Your task to perform on an android device: Open privacy settings Image 0: 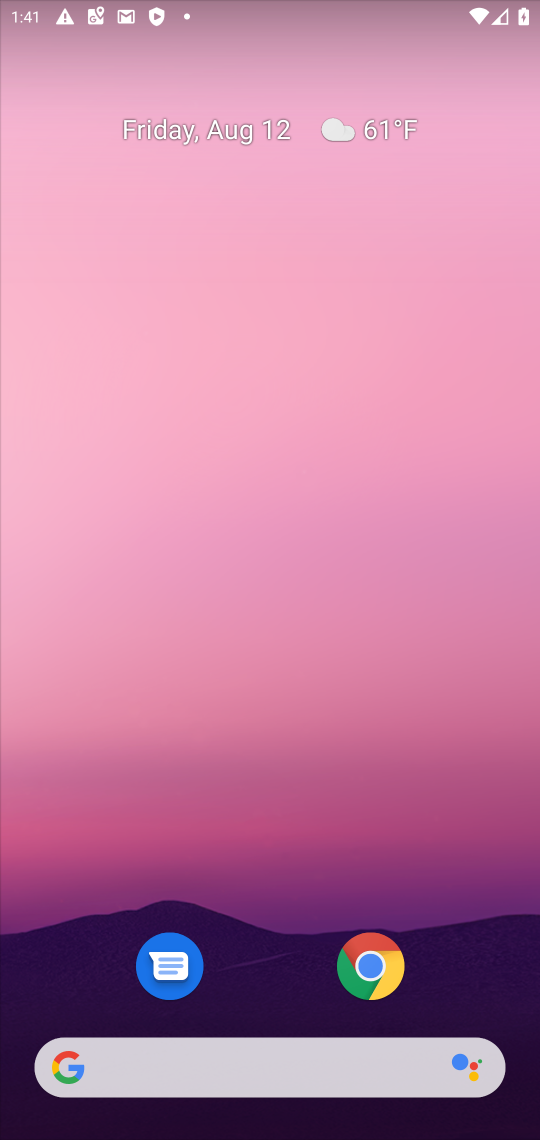
Step 0: drag from (465, 910) to (460, 23)
Your task to perform on an android device: Open privacy settings Image 1: 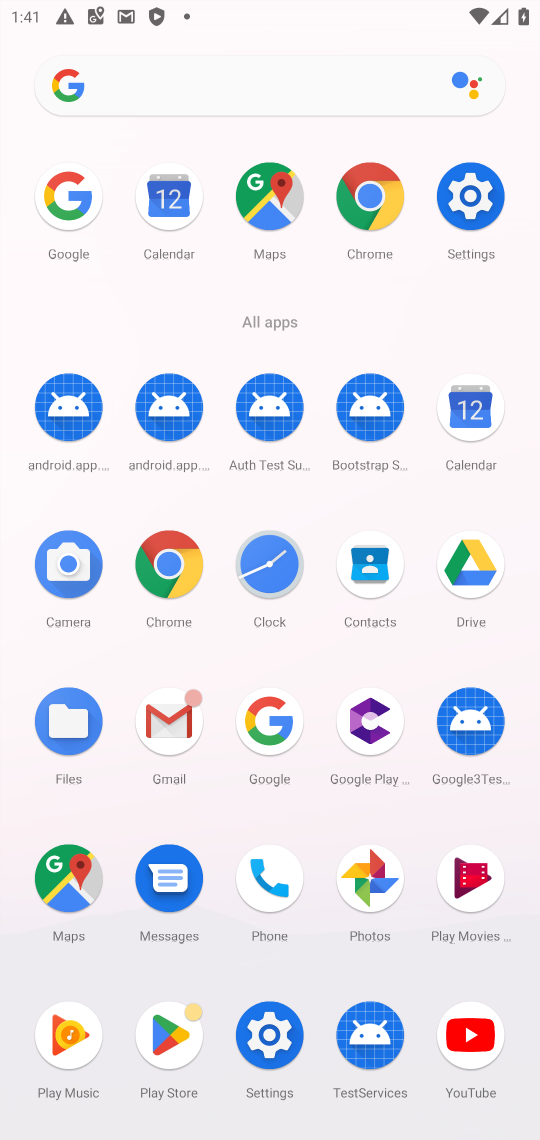
Step 1: click (280, 1028)
Your task to perform on an android device: Open privacy settings Image 2: 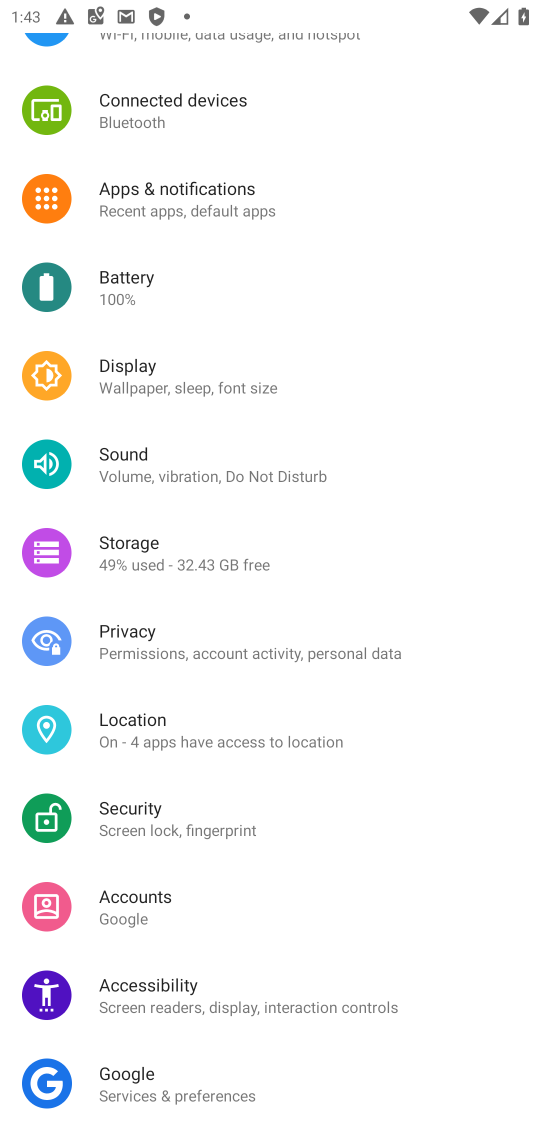
Step 2: drag from (363, 465) to (335, 1068)
Your task to perform on an android device: Open privacy settings Image 3: 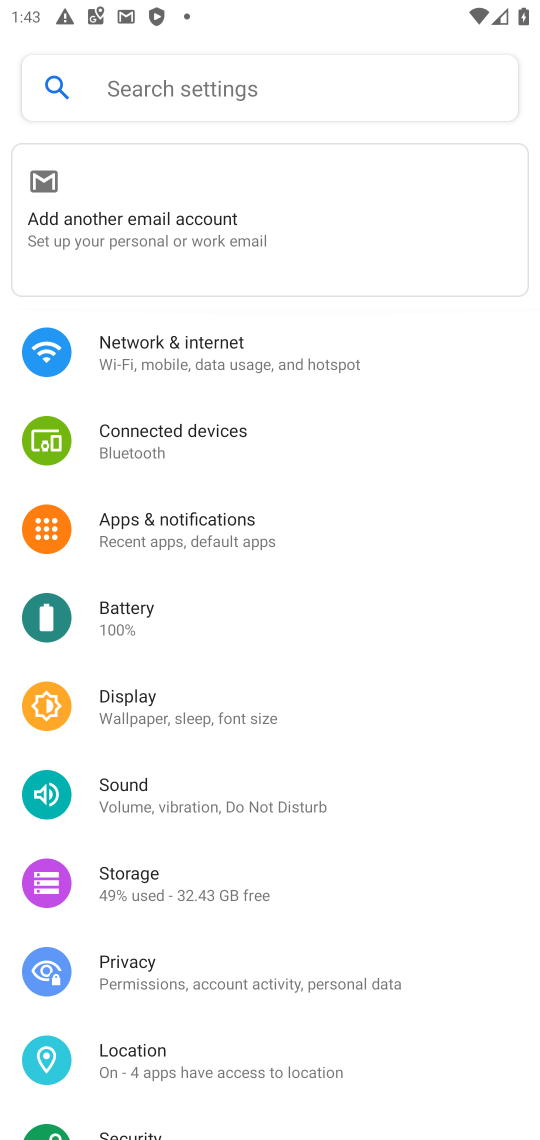
Step 3: drag from (321, 947) to (414, 74)
Your task to perform on an android device: Open privacy settings Image 4: 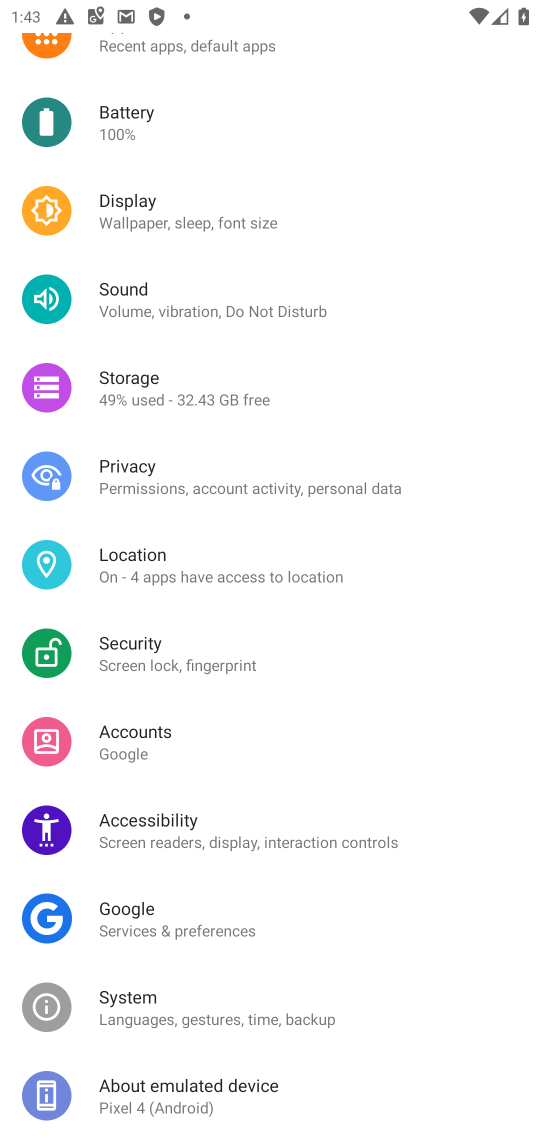
Step 4: drag from (335, 340) to (288, 707)
Your task to perform on an android device: Open privacy settings Image 5: 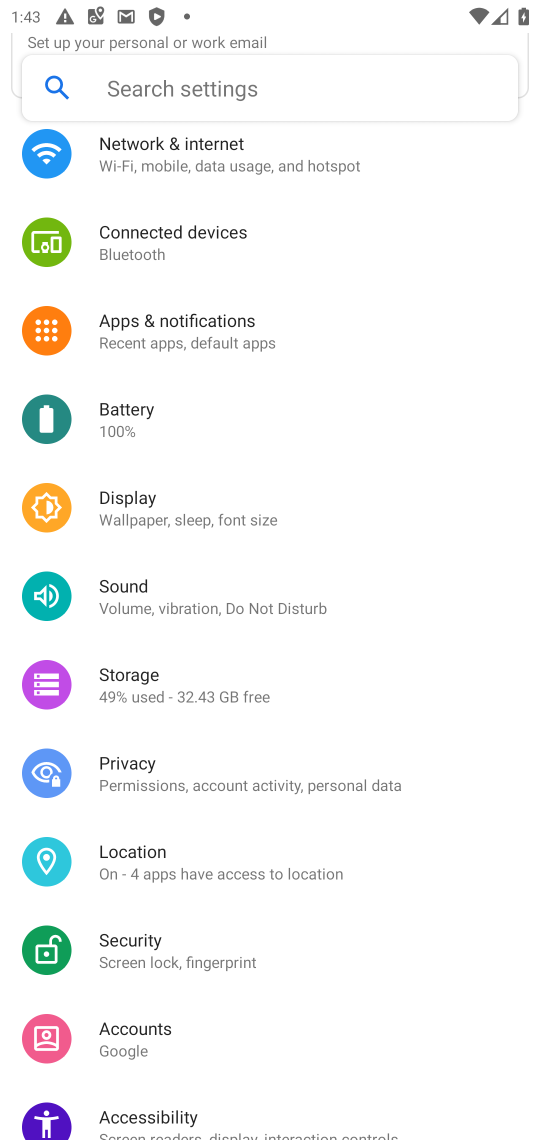
Step 5: click (179, 772)
Your task to perform on an android device: Open privacy settings Image 6: 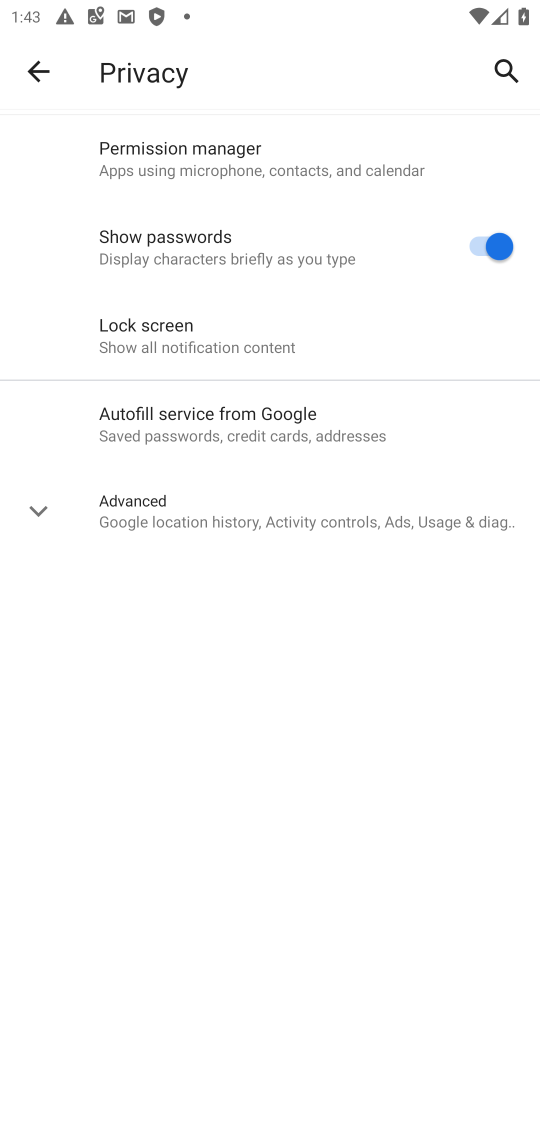
Step 6: task complete